Your task to perform on an android device: Open Google Image 0: 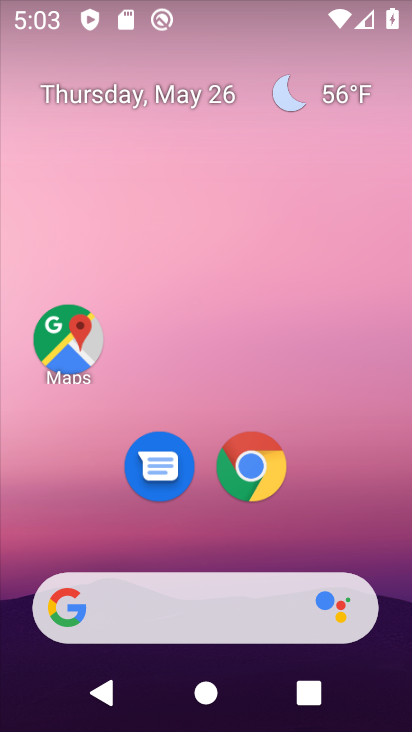
Step 0: drag from (341, 531) to (376, 71)
Your task to perform on an android device: Open Google Image 1: 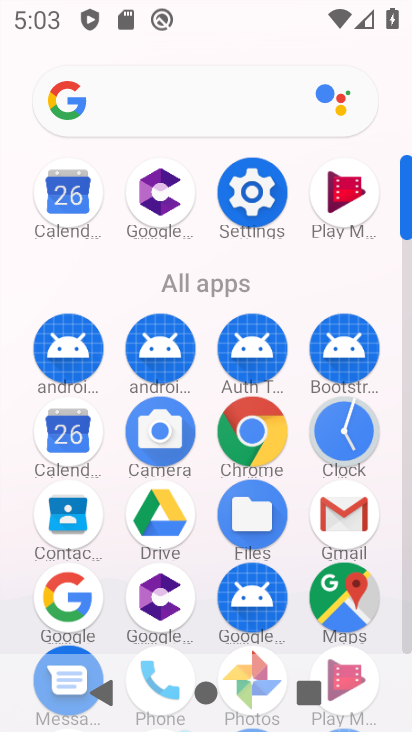
Step 1: click (70, 584)
Your task to perform on an android device: Open Google Image 2: 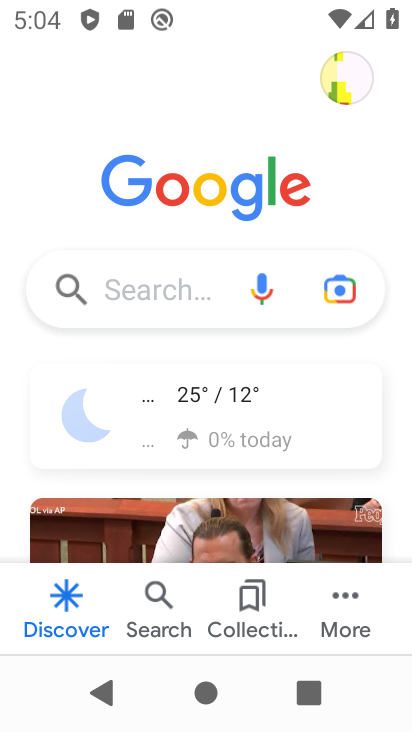
Step 2: task complete